Your task to perform on an android device: change notification settings in the gmail app Image 0: 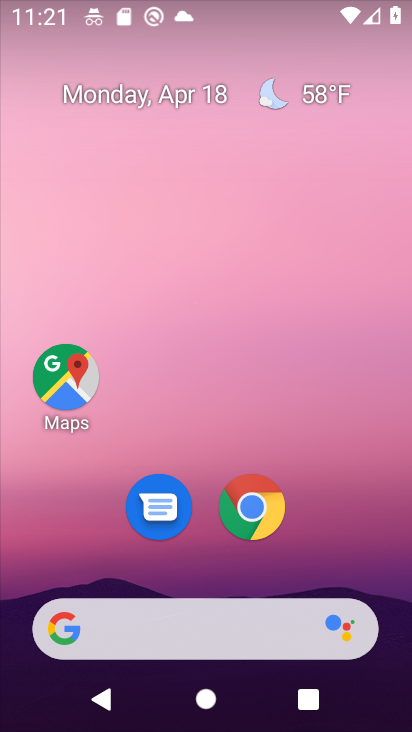
Step 0: drag from (207, 576) to (277, 11)
Your task to perform on an android device: change notification settings in the gmail app Image 1: 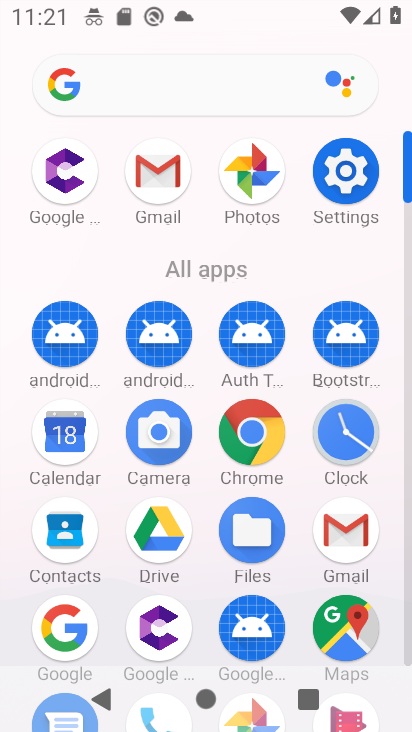
Step 1: click (344, 524)
Your task to perform on an android device: change notification settings in the gmail app Image 2: 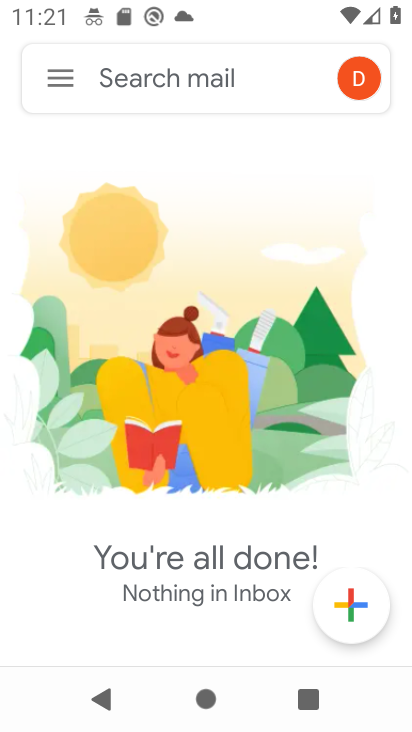
Step 2: click (64, 78)
Your task to perform on an android device: change notification settings in the gmail app Image 3: 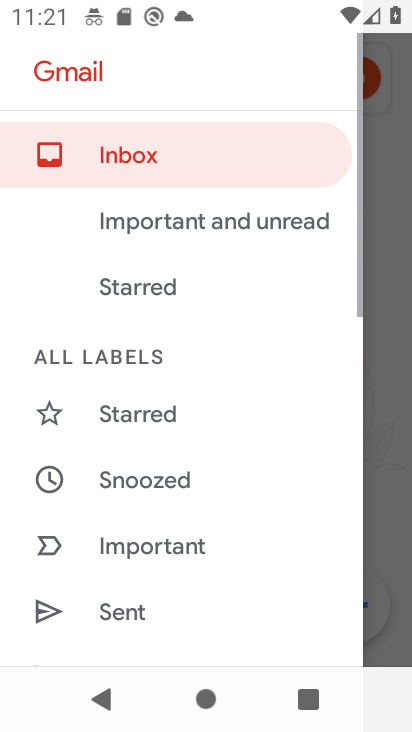
Step 3: drag from (139, 596) to (226, 10)
Your task to perform on an android device: change notification settings in the gmail app Image 4: 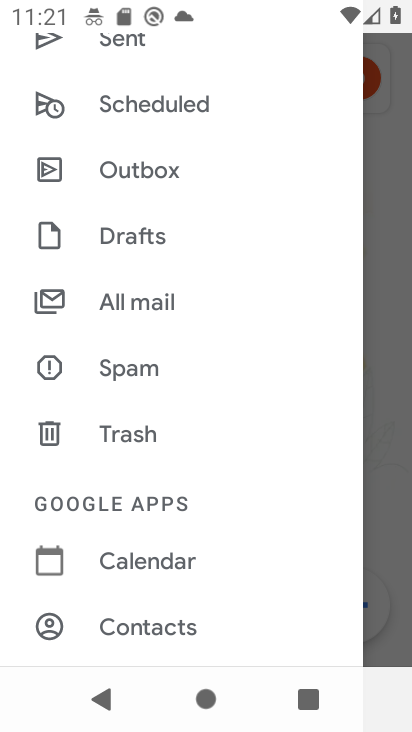
Step 4: drag from (155, 559) to (211, 168)
Your task to perform on an android device: change notification settings in the gmail app Image 5: 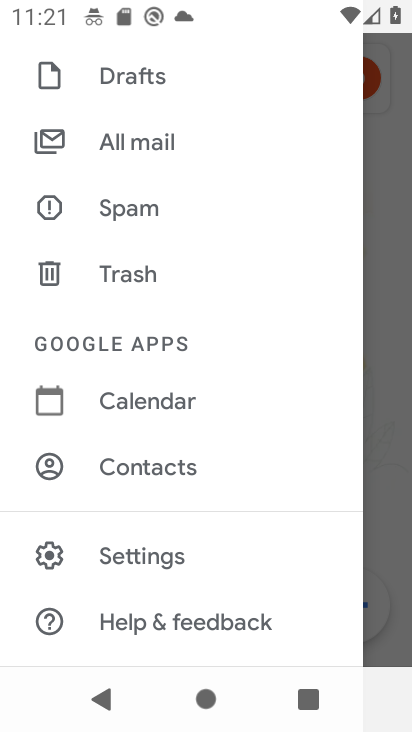
Step 5: click (137, 563)
Your task to perform on an android device: change notification settings in the gmail app Image 6: 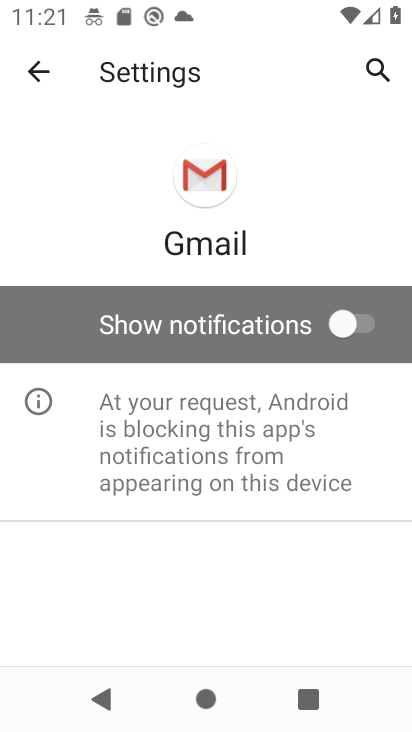
Step 6: click (358, 305)
Your task to perform on an android device: change notification settings in the gmail app Image 7: 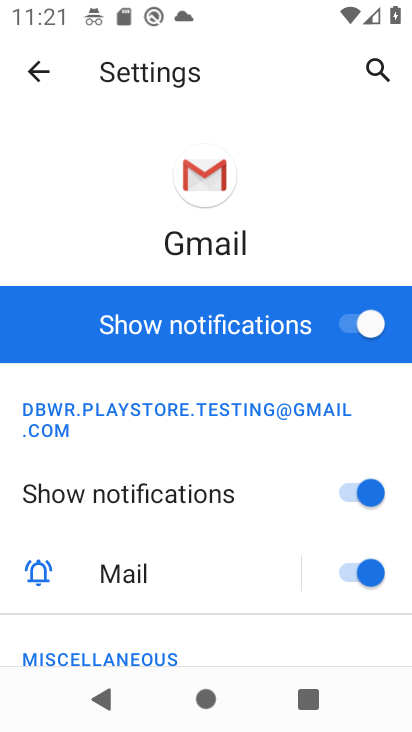
Step 7: task complete